Your task to perform on an android device: Turn off the flashlight Image 0: 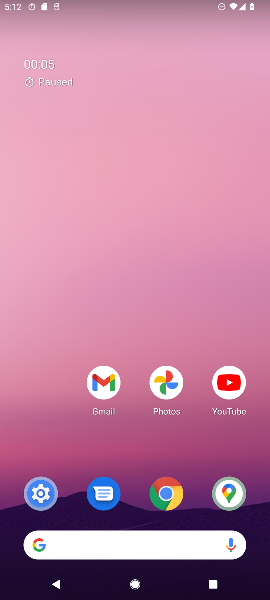
Step 0: drag from (170, 547) to (127, 130)
Your task to perform on an android device: Turn off the flashlight Image 1: 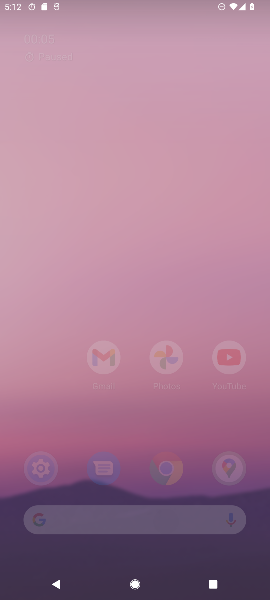
Step 1: drag from (140, 436) to (101, 119)
Your task to perform on an android device: Turn off the flashlight Image 2: 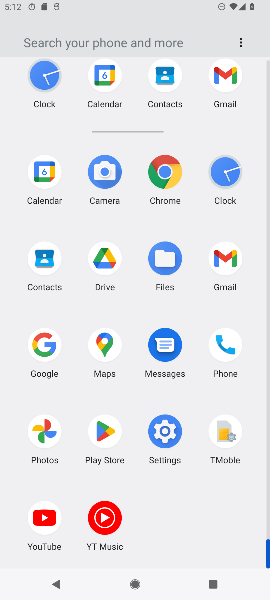
Step 2: drag from (144, 540) to (103, 92)
Your task to perform on an android device: Turn off the flashlight Image 3: 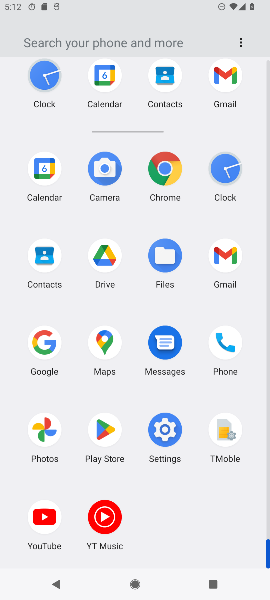
Step 3: click (168, 438)
Your task to perform on an android device: Turn off the flashlight Image 4: 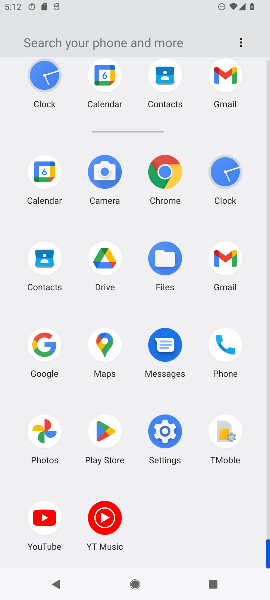
Step 4: click (168, 438)
Your task to perform on an android device: Turn off the flashlight Image 5: 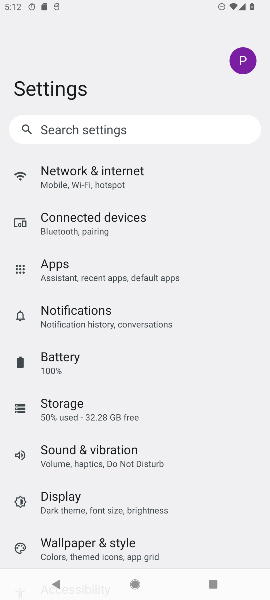
Step 5: task complete